Your task to perform on an android device: set default search engine in the chrome app Image 0: 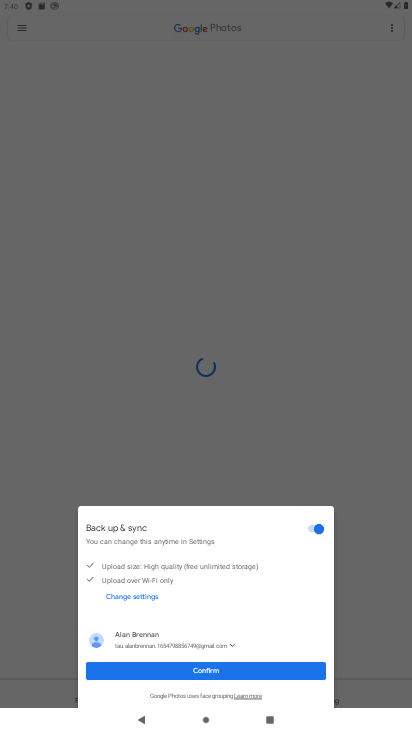
Step 0: press home button
Your task to perform on an android device: set default search engine in the chrome app Image 1: 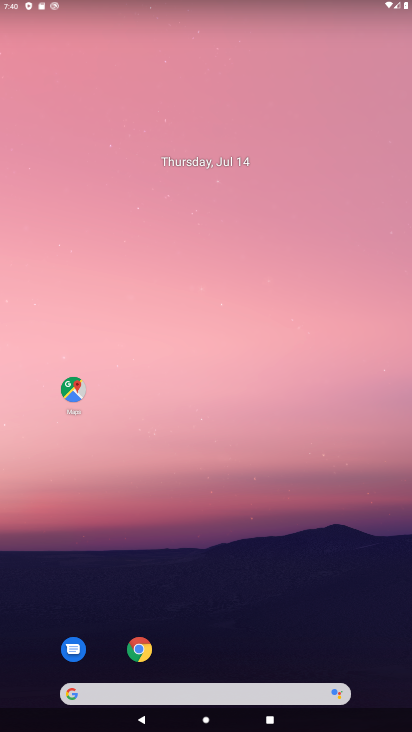
Step 1: drag from (301, 616) to (238, 14)
Your task to perform on an android device: set default search engine in the chrome app Image 2: 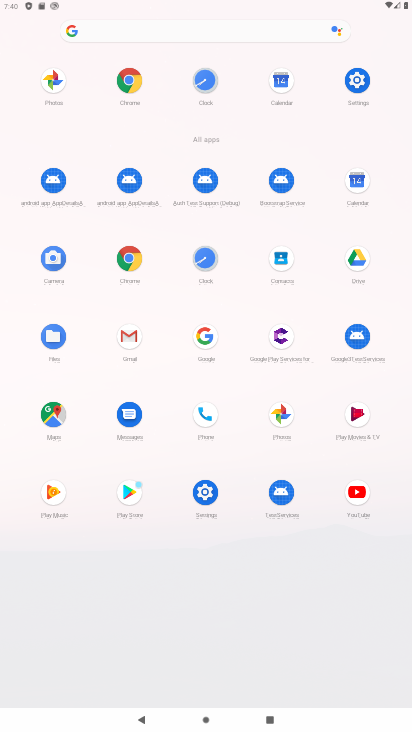
Step 2: click (135, 73)
Your task to perform on an android device: set default search engine in the chrome app Image 3: 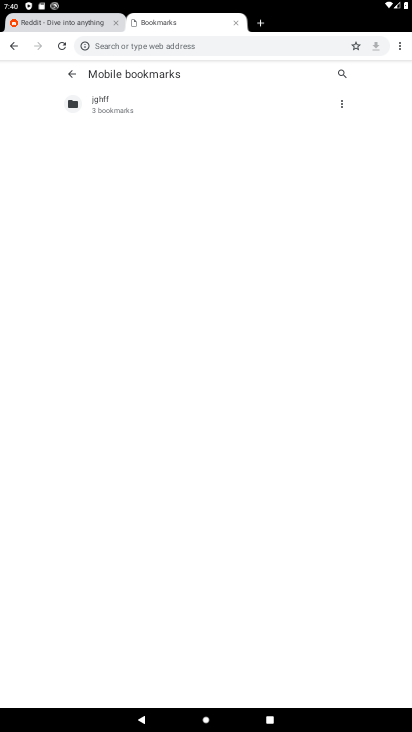
Step 3: drag from (402, 44) to (293, 210)
Your task to perform on an android device: set default search engine in the chrome app Image 4: 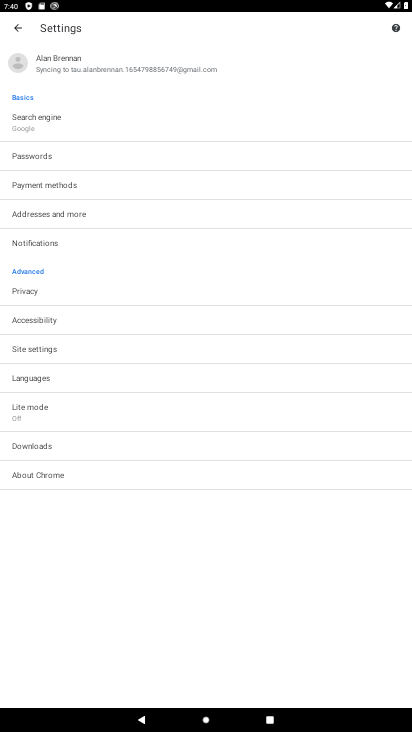
Step 4: click (52, 127)
Your task to perform on an android device: set default search engine in the chrome app Image 5: 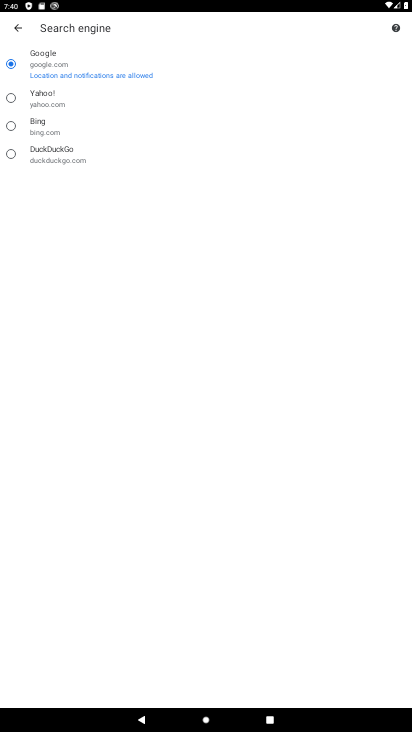
Step 5: task complete